Your task to perform on an android device: toggle pop-ups in chrome Image 0: 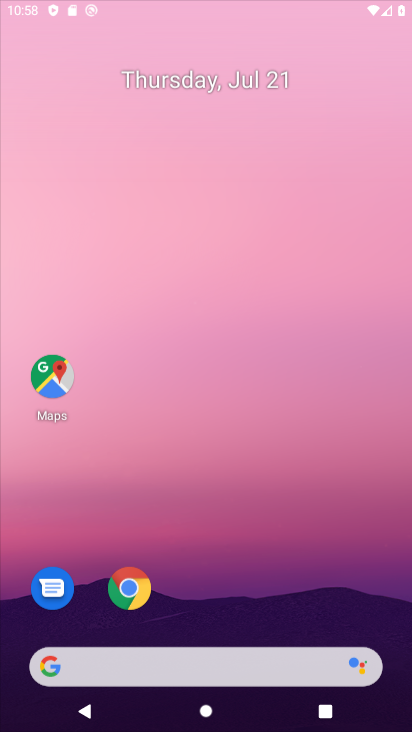
Step 0: press home button
Your task to perform on an android device: toggle pop-ups in chrome Image 1: 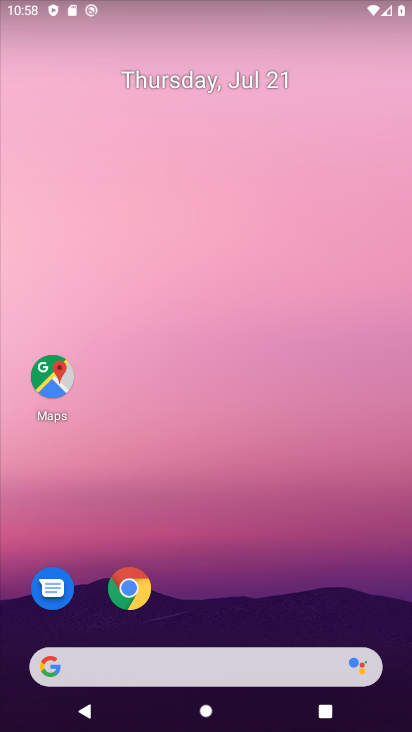
Step 1: click (128, 582)
Your task to perform on an android device: toggle pop-ups in chrome Image 2: 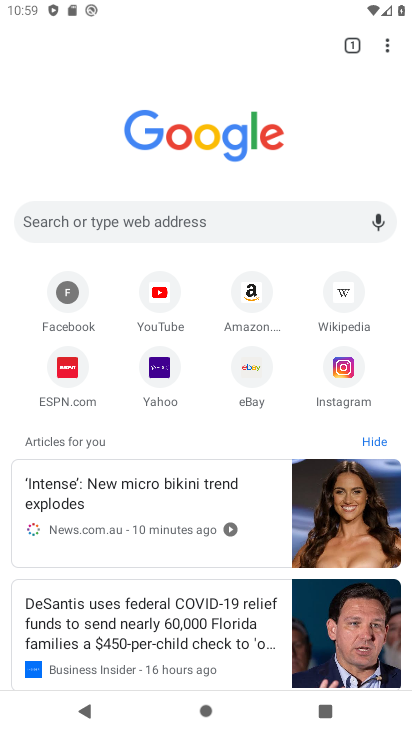
Step 2: click (387, 46)
Your task to perform on an android device: toggle pop-ups in chrome Image 3: 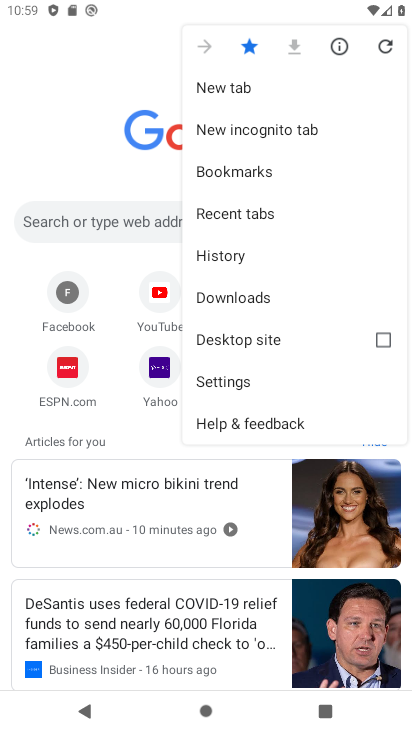
Step 3: click (251, 381)
Your task to perform on an android device: toggle pop-ups in chrome Image 4: 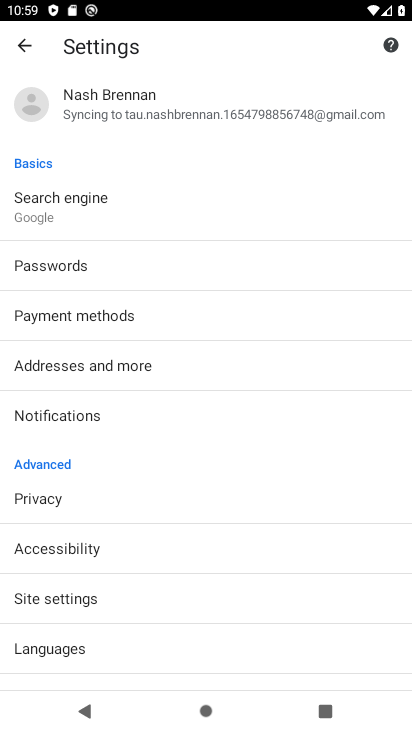
Step 4: click (111, 587)
Your task to perform on an android device: toggle pop-ups in chrome Image 5: 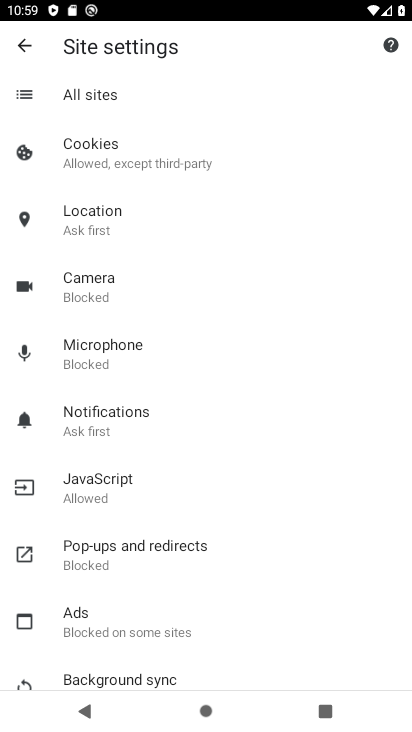
Step 5: click (46, 552)
Your task to perform on an android device: toggle pop-ups in chrome Image 6: 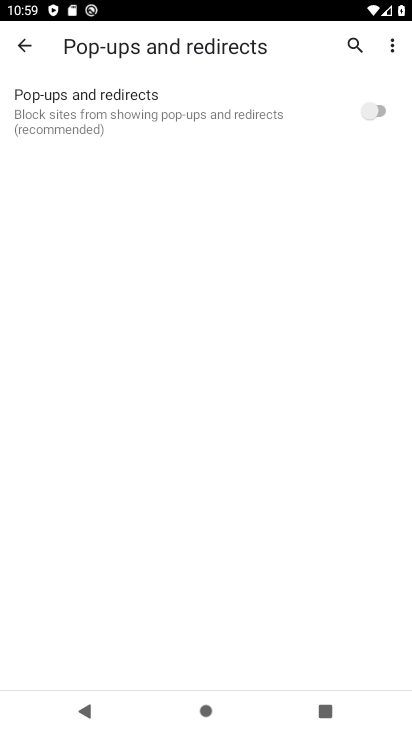
Step 6: click (375, 105)
Your task to perform on an android device: toggle pop-ups in chrome Image 7: 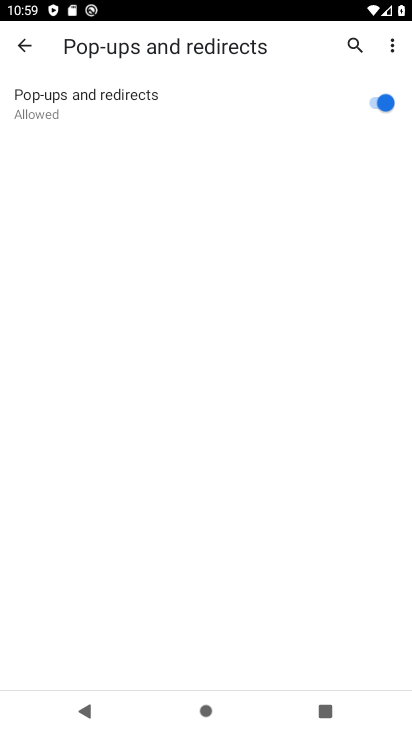
Step 7: task complete